Your task to perform on an android device: turn on data saver in the chrome app Image 0: 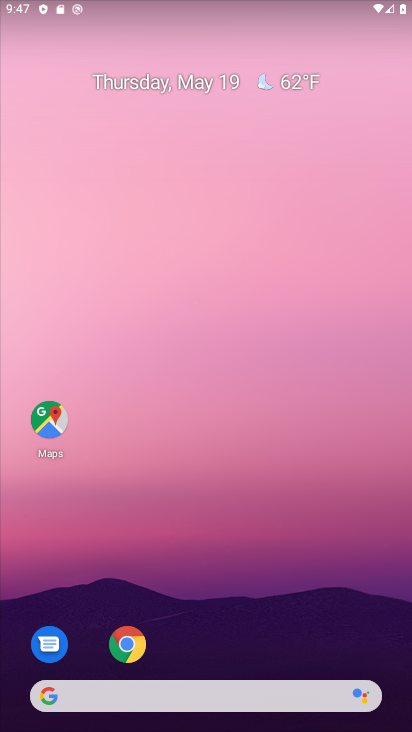
Step 0: drag from (319, 593) to (227, 0)
Your task to perform on an android device: turn on data saver in the chrome app Image 1: 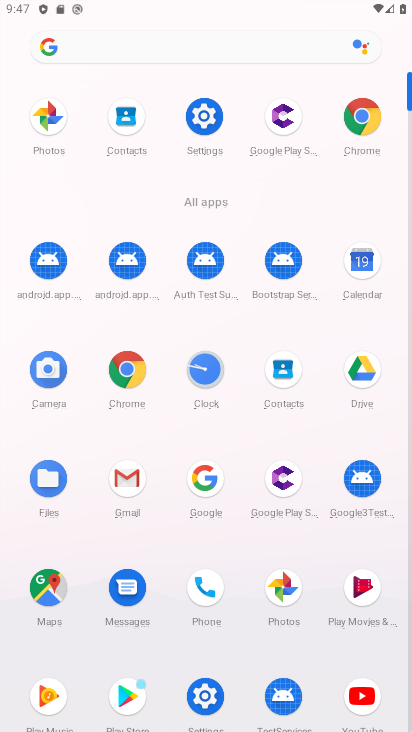
Step 1: click (368, 116)
Your task to perform on an android device: turn on data saver in the chrome app Image 2: 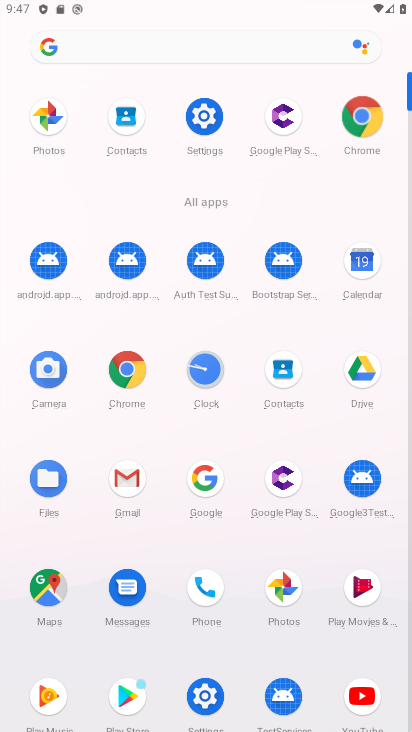
Step 2: click (367, 117)
Your task to perform on an android device: turn on data saver in the chrome app Image 3: 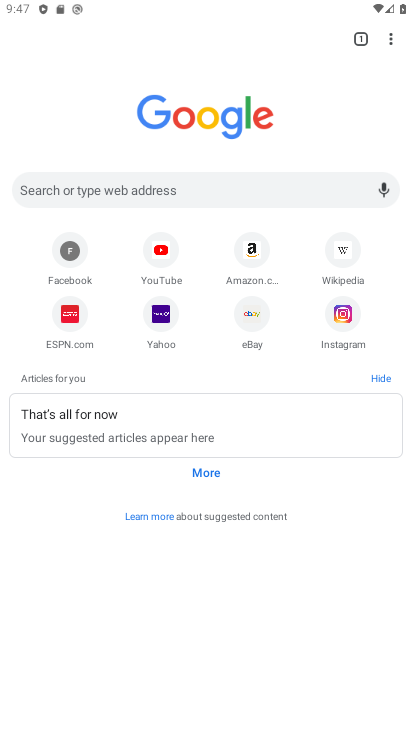
Step 3: drag from (394, 40) to (247, 370)
Your task to perform on an android device: turn on data saver in the chrome app Image 4: 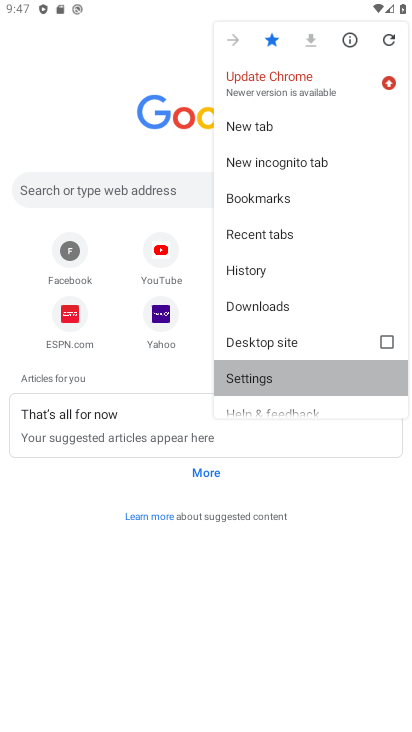
Step 4: click (244, 373)
Your task to perform on an android device: turn on data saver in the chrome app Image 5: 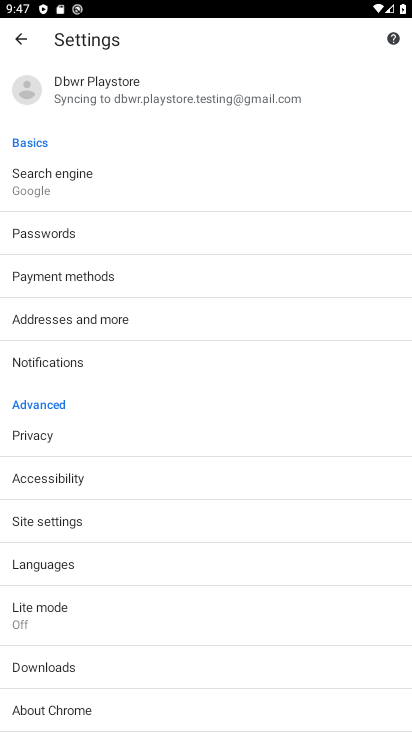
Step 5: click (34, 600)
Your task to perform on an android device: turn on data saver in the chrome app Image 6: 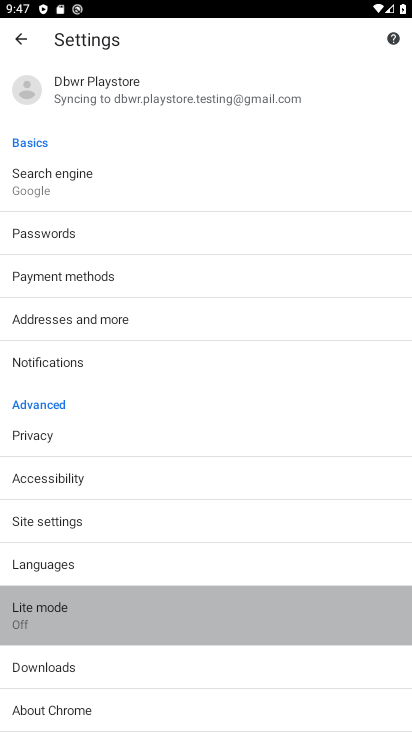
Step 6: click (34, 600)
Your task to perform on an android device: turn on data saver in the chrome app Image 7: 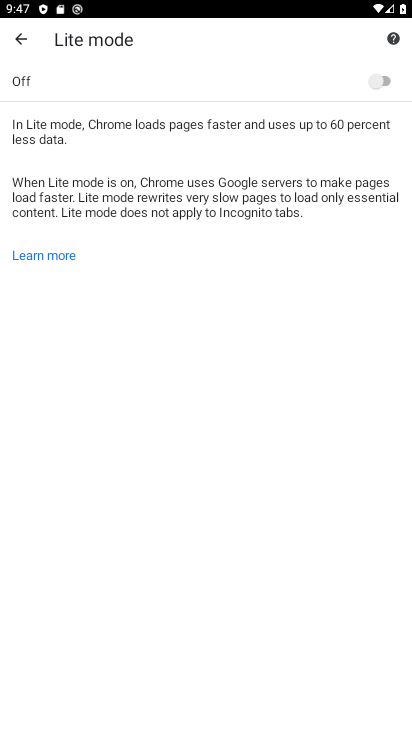
Step 7: click (377, 93)
Your task to perform on an android device: turn on data saver in the chrome app Image 8: 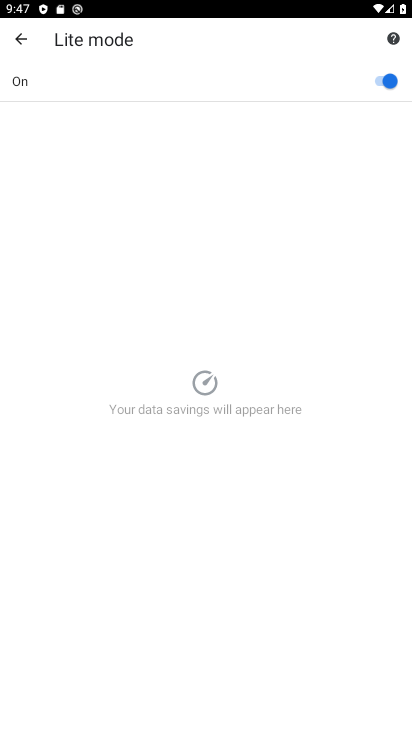
Step 8: task complete